Your task to perform on an android device: What's the weather going to be this weekend? Image 0: 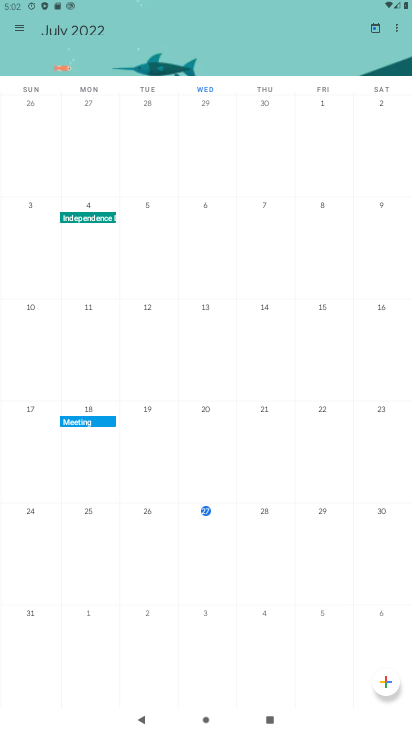
Step 0: press home button
Your task to perform on an android device: What's the weather going to be this weekend? Image 1: 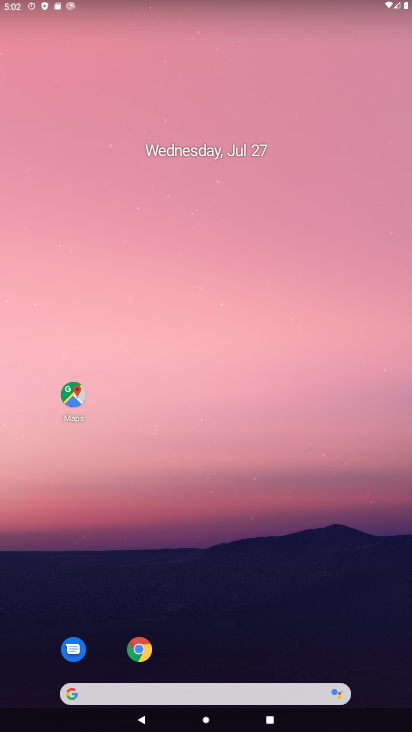
Step 1: drag from (192, 690) to (142, 141)
Your task to perform on an android device: What's the weather going to be this weekend? Image 2: 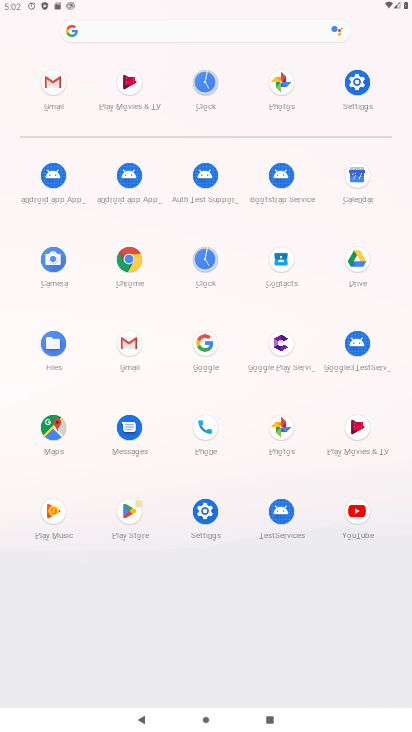
Step 2: click (204, 338)
Your task to perform on an android device: What's the weather going to be this weekend? Image 3: 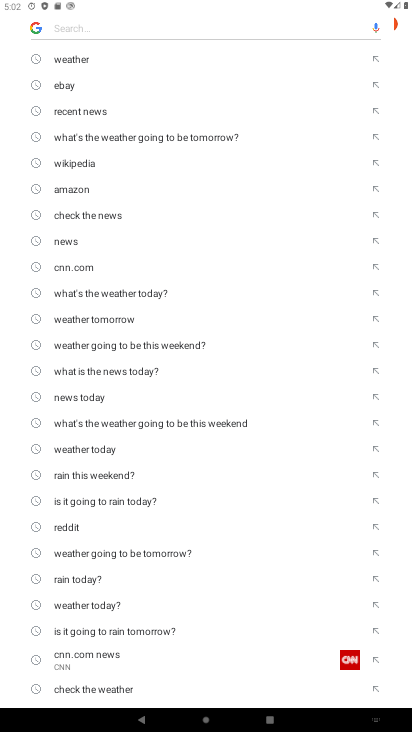
Step 3: type "What's the weather going to be this weekend?"
Your task to perform on an android device: What's the weather going to be this weekend? Image 4: 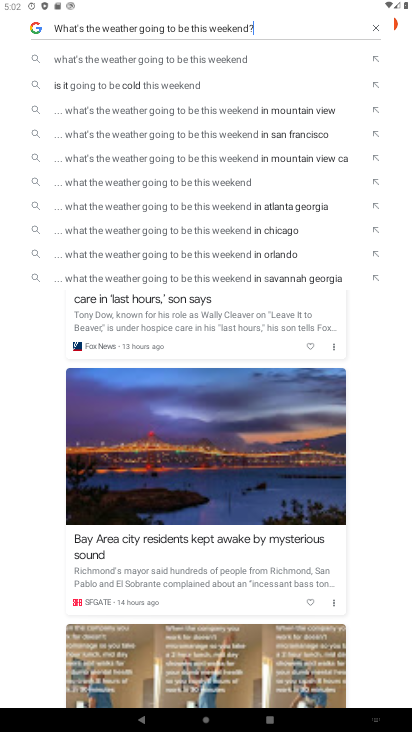
Step 4: click (206, 59)
Your task to perform on an android device: What's the weather going to be this weekend? Image 5: 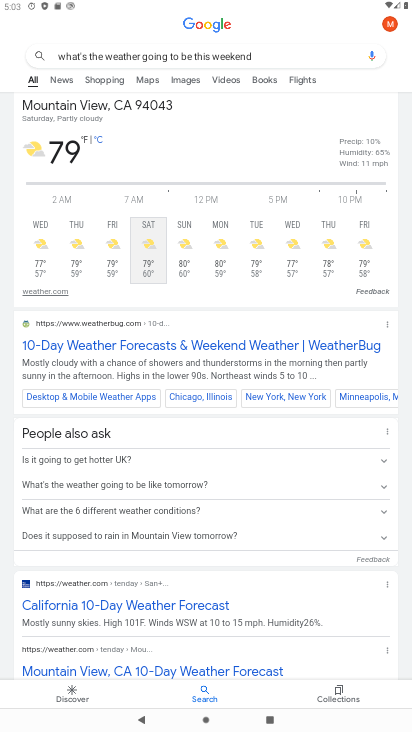
Step 5: task complete